Your task to perform on an android device: Open Google Chrome and click the shortcut for Amazon.com Image 0: 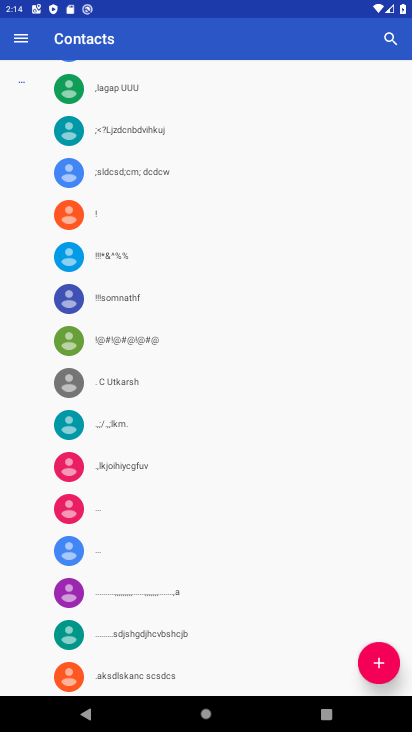
Step 0: press home button
Your task to perform on an android device: Open Google Chrome and click the shortcut for Amazon.com Image 1: 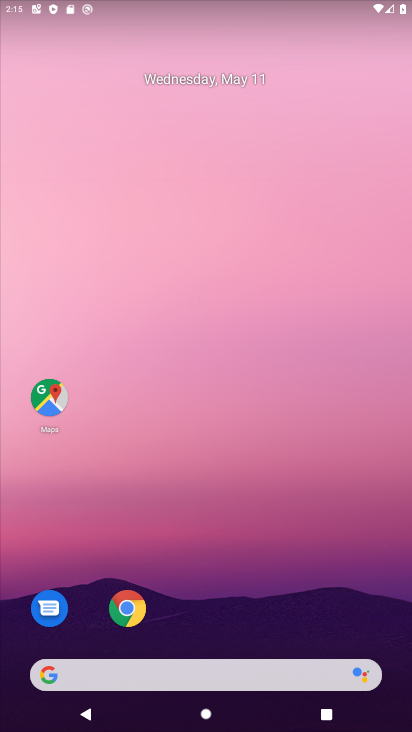
Step 1: drag from (246, 625) to (147, 726)
Your task to perform on an android device: Open Google Chrome and click the shortcut for Amazon.com Image 2: 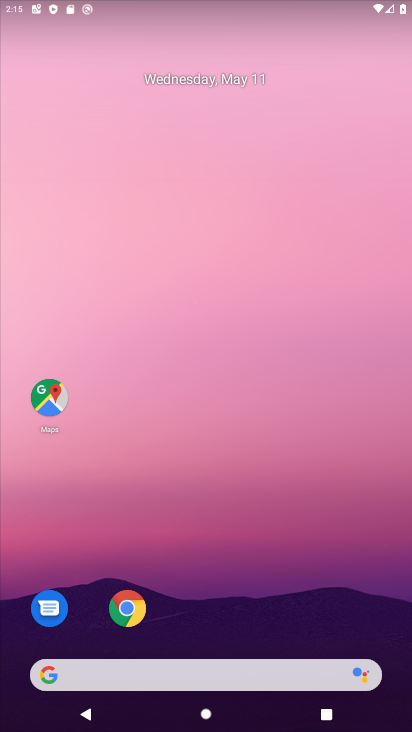
Step 2: click (130, 600)
Your task to perform on an android device: Open Google Chrome and click the shortcut for Amazon.com Image 3: 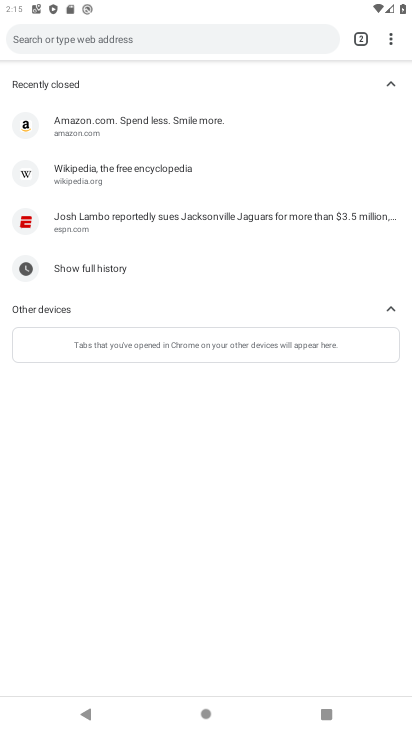
Step 3: click (357, 38)
Your task to perform on an android device: Open Google Chrome and click the shortcut for Amazon.com Image 4: 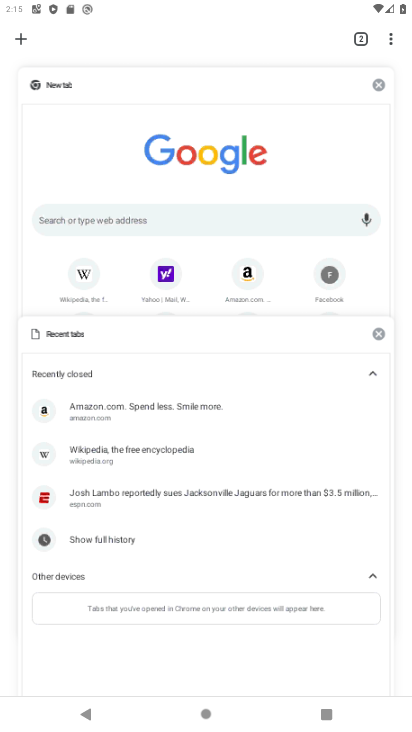
Step 4: click (22, 36)
Your task to perform on an android device: Open Google Chrome and click the shortcut for Amazon.com Image 5: 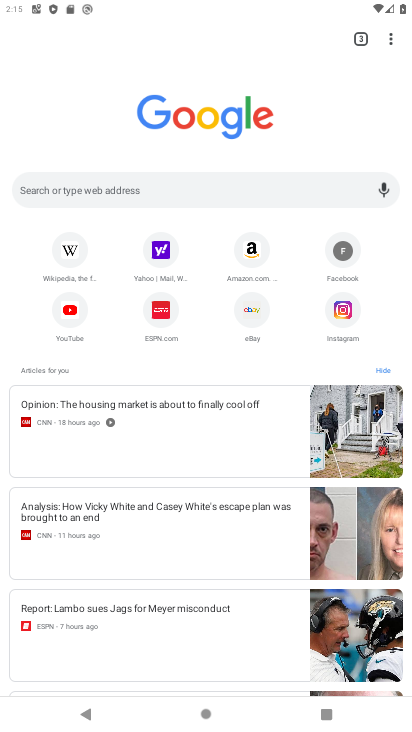
Step 5: click (256, 260)
Your task to perform on an android device: Open Google Chrome and click the shortcut for Amazon.com Image 6: 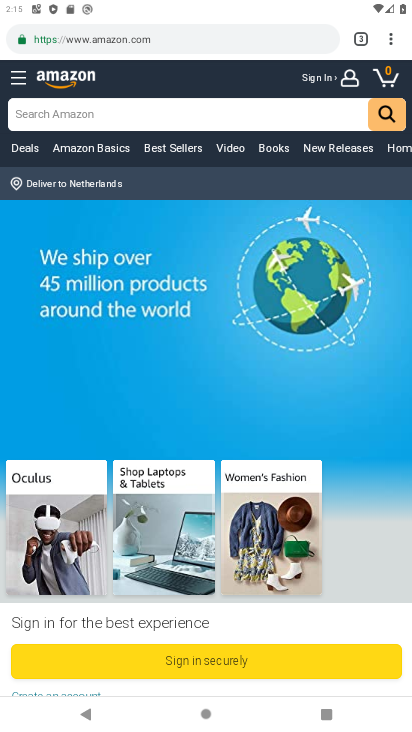
Step 6: task complete